Your task to perform on an android device: choose inbox layout in the gmail app Image 0: 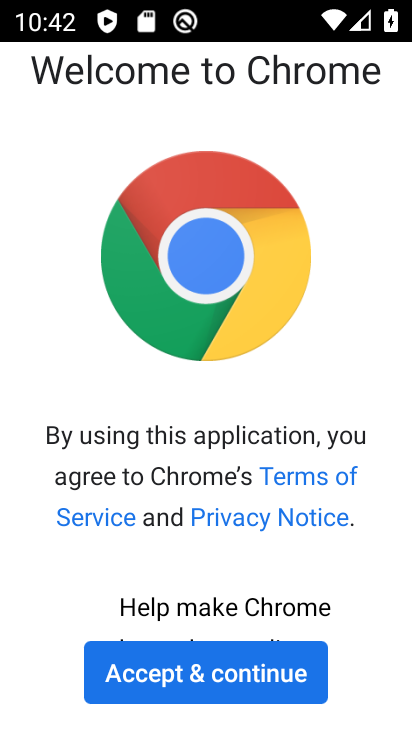
Step 0: press home button
Your task to perform on an android device: choose inbox layout in the gmail app Image 1: 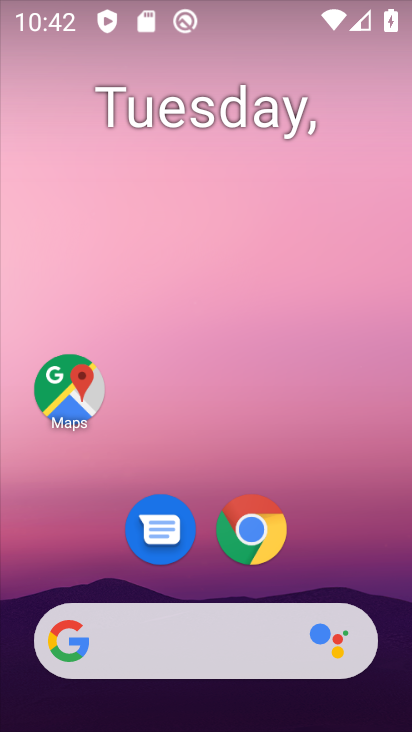
Step 1: drag from (68, 605) to (169, 132)
Your task to perform on an android device: choose inbox layout in the gmail app Image 2: 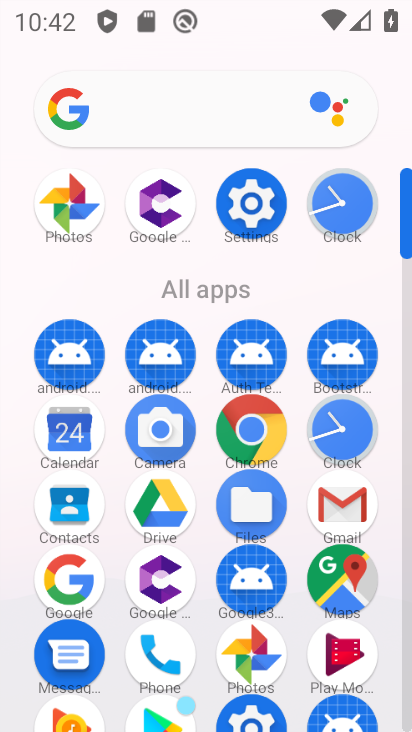
Step 2: drag from (141, 665) to (190, 455)
Your task to perform on an android device: choose inbox layout in the gmail app Image 3: 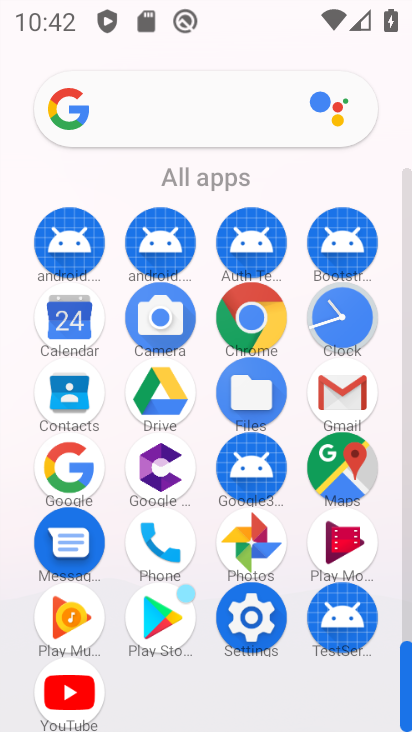
Step 3: click (349, 398)
Your task to perform on an android device: choose inbox layout in the gmail app Image 4: 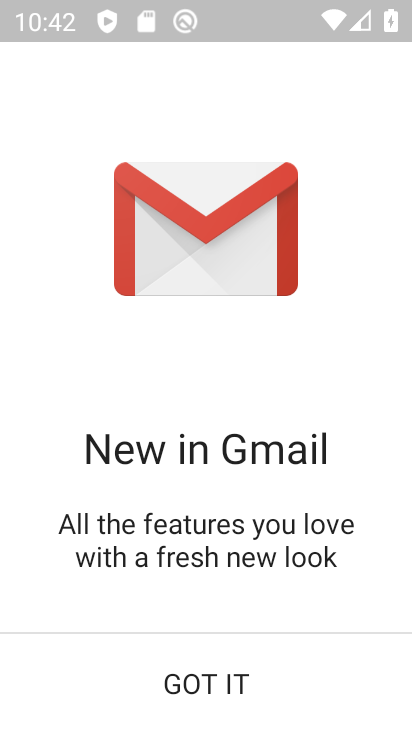
Step 4: click (233, 697)
Your task to perform on an android device: choose inbox layout in the gmail app Image 5: 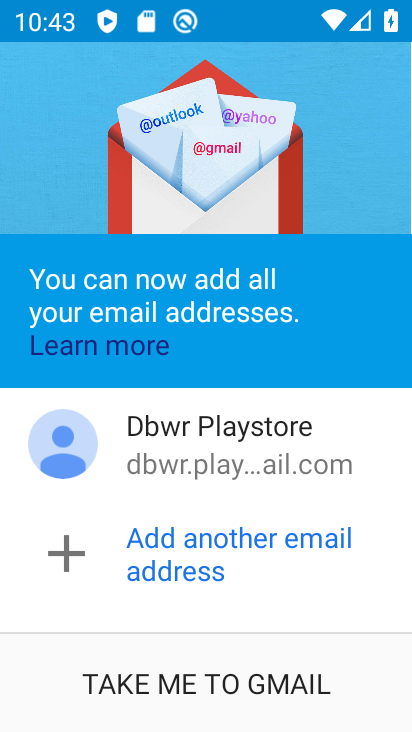
Step 5: click (233, 696)
Your task to perform on an android device: choose inbox layout in the gmail app Image 6: 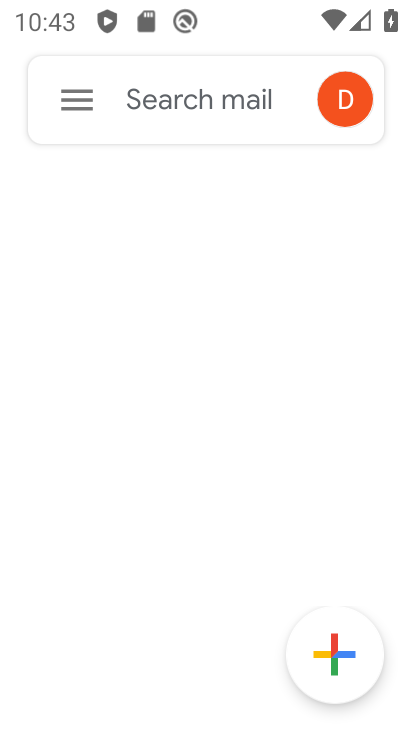
Step 6: click (85, 112)
Your task to perform on an android device: choose inbox layout in the gmail app Image 7: 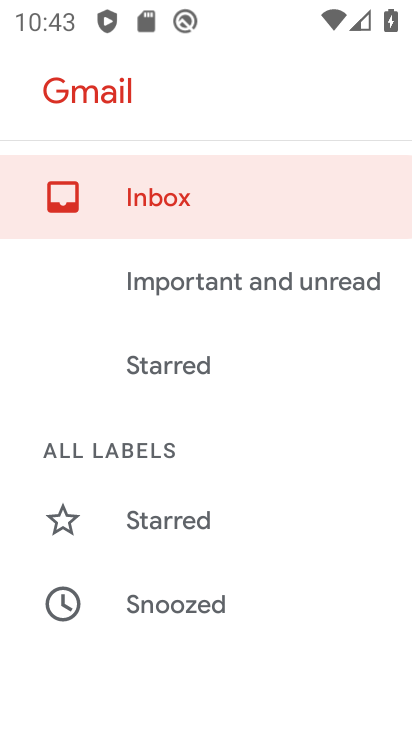
Step 7: drag from (185, 391) to (277, 108)
Your task to perform on an android device: choose inbox layout in the gmail app Image 8: 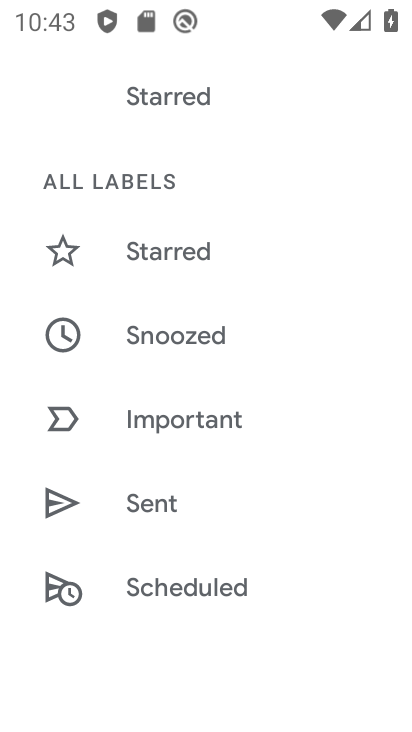
Step 8: drag from (150, 591) to (276, 73)
Your task to perform on an android device: choose inbox layout in the gmail app Image 9: 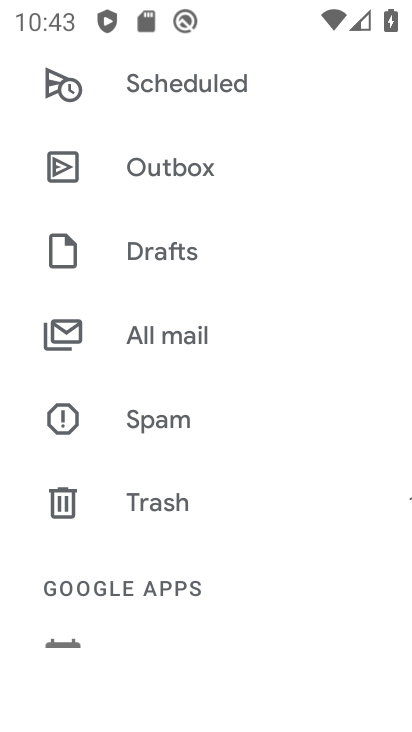
Step 9: drag from (172, 572) to (265, 158)
Your task to perform on an android device: choose inbox layout in the gmail app Image 10: 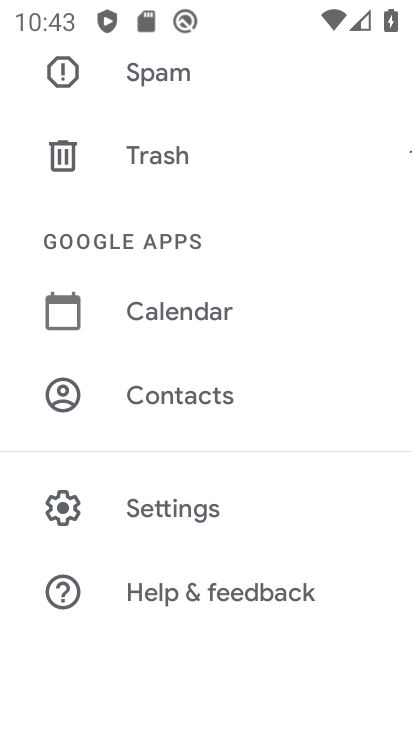
Step 10: click (193, 517)
Your task to perform on an android device: choose inbox layout in the gmail app Image 11: 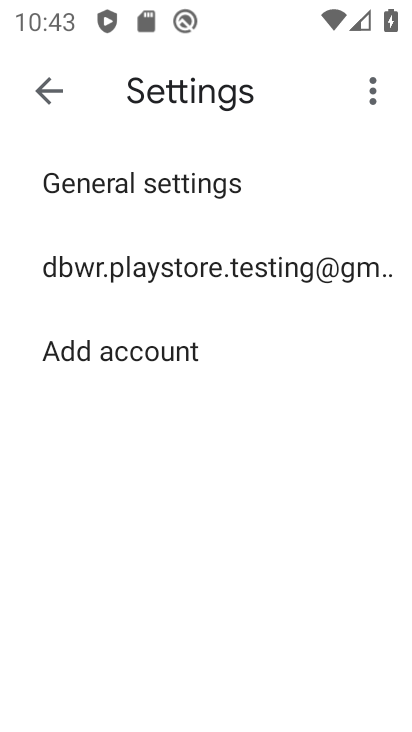
Step 11: click (251, 265)
Your task to perform on an android device: choose inbox layout in the gmail app Image 12: 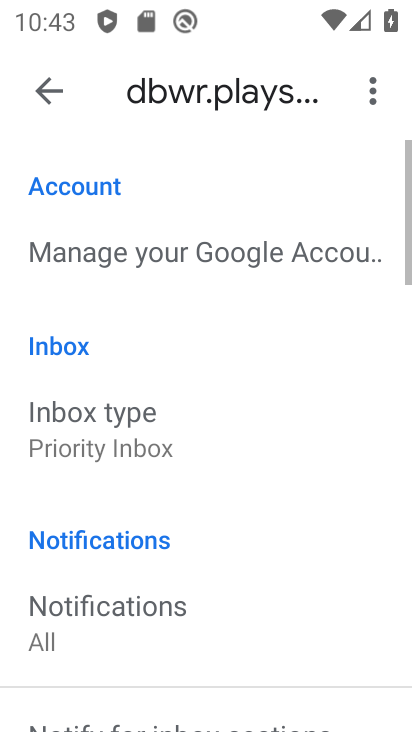
Step 12: drag from (170, 618) to (242, 304)
Your task to perform on an android device: choose inbox layout in the gmail app Image 13: 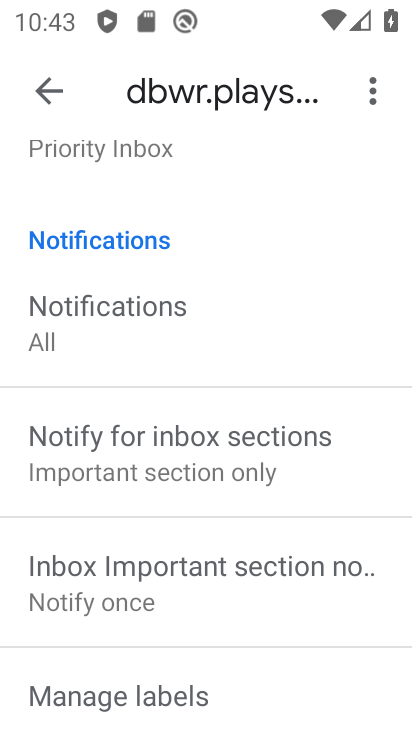
Step 13: drag from (226, 175) to (225, 441)
Your task to perform on an android device: choose inbox layout in the gmail app Image 14: 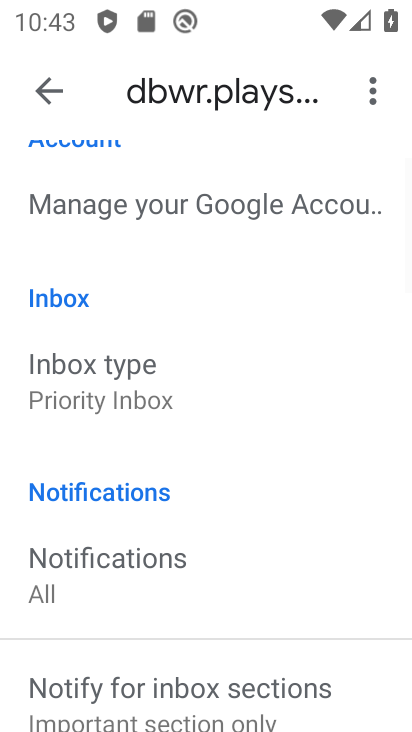
Step 14: click (228, 377)
Your task to perform on an android device: choose inbox layout in the gmail app Image 15: 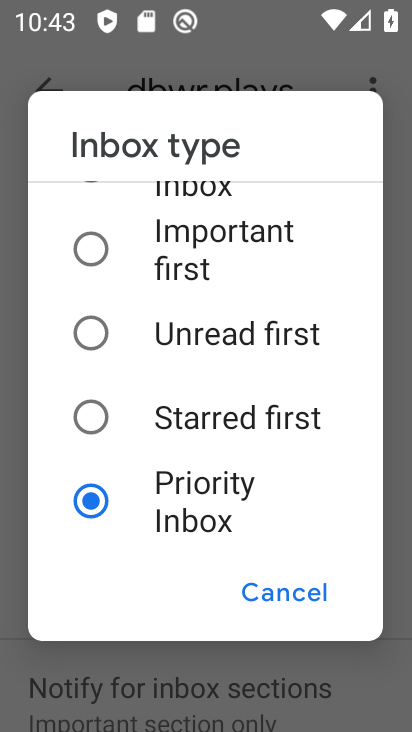
Step 15: click (242, 430)
Your task to perform on an android device: choose inbox layout in the gmail app Image 16: 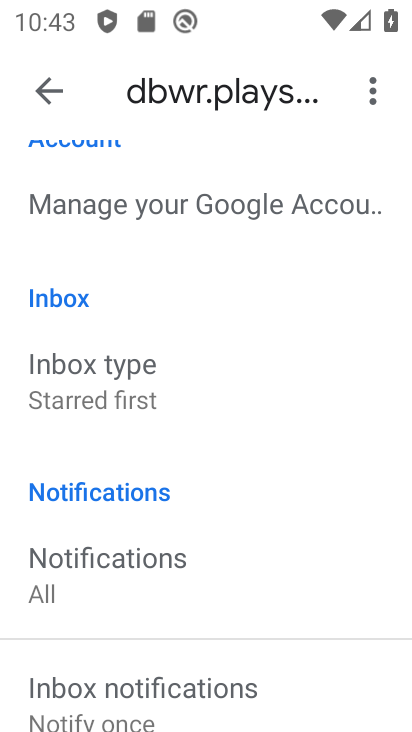
Step 16: task complete